Your task to perform on an android device: change your default location settings in chrome Image 0: 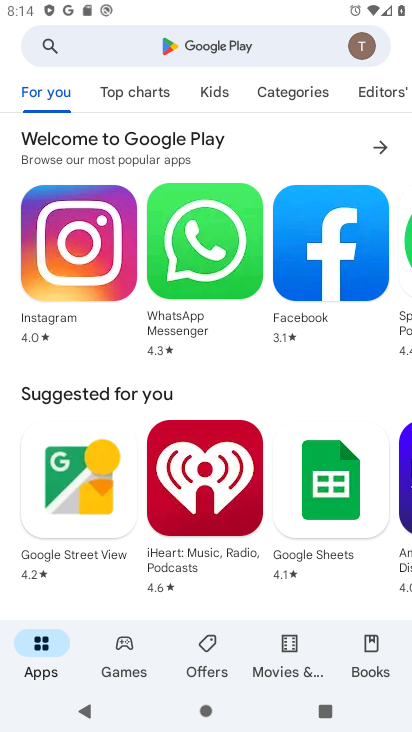
Step 0: press home button
Your task to perform on an android device: change your default location settings in chrome Image 1: 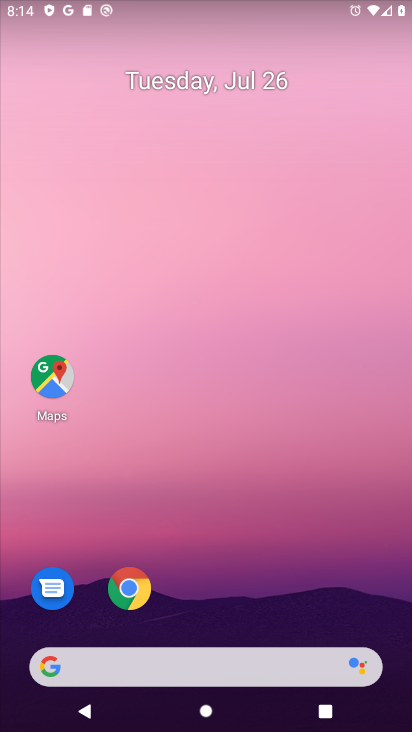
Step 1: drag from (237, 581) to (331, 19)
Your task to perform on an android device: change your default location settings in chrome Image 2: 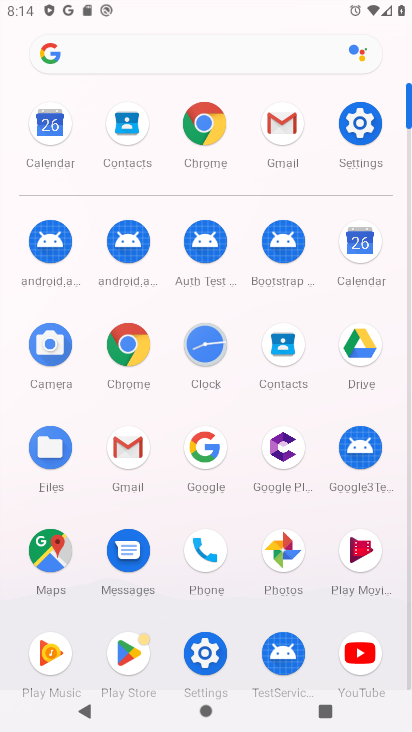
Step 2: click (213, 132)
Your task to perform on an android device: change your default location settings in chrome Image 3: 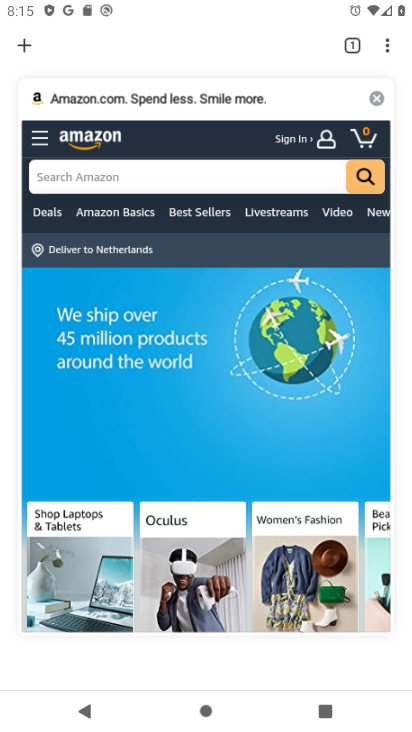
Step 3: click (144, 154)
Your task to perform on an android device: change your default location settings in chrome Image 4: 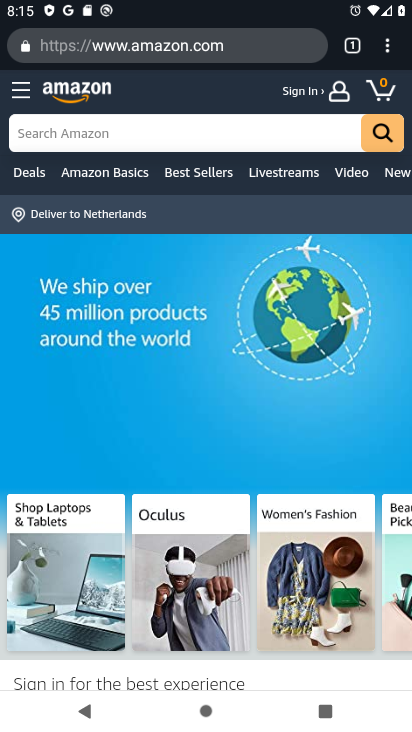
Step 4: click (389, 54)
Your task to perform on an android device: change your default location settings in chrome Image 5: 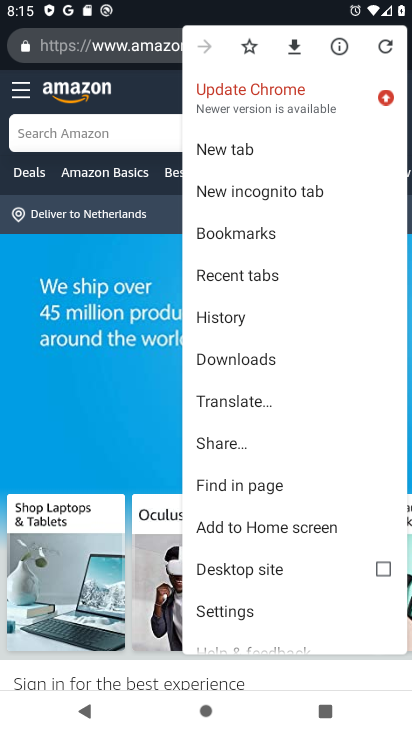
Step 5: click (222, 610)
Your task to perform on an android device: change your default location settings in chrome Image 6: 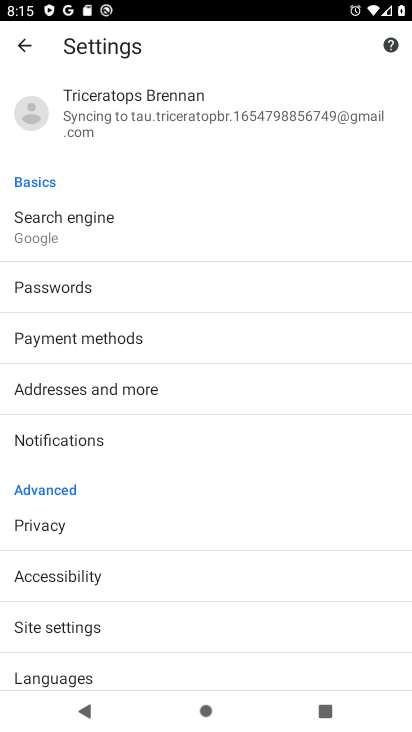
Step 6: click (51, 628)
Your task to perform on an android device: change your default location settings in chrome Image 7: 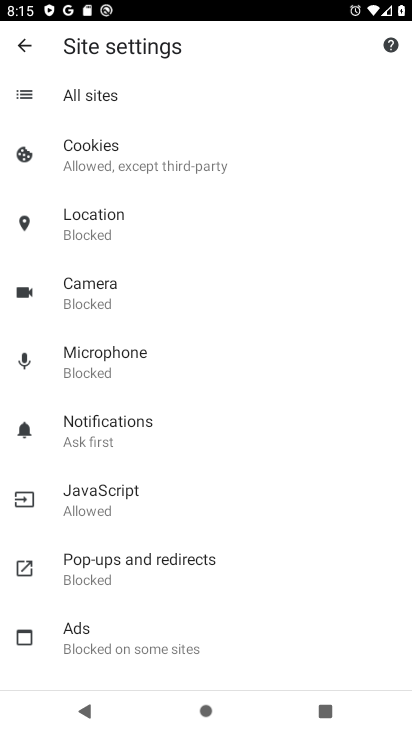
Step 7: drag from (113, 483) to (123, 585)
Your task to perform on an android device: change your default location settings in chrome Image 8: 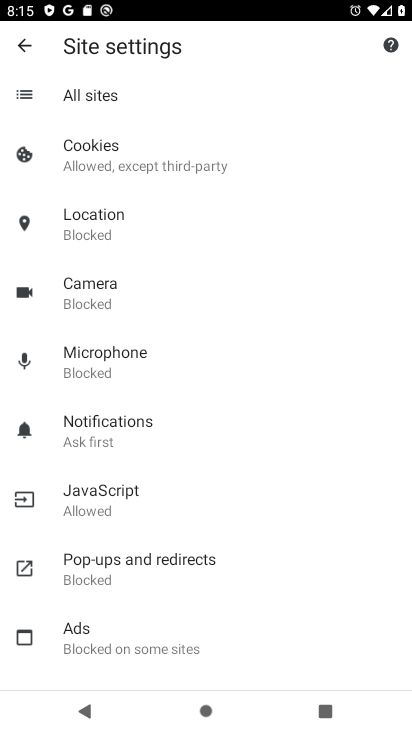
Step 8: click (127, 231)
Your task to perform on an android device: change your default location settings in chrome Image 9: 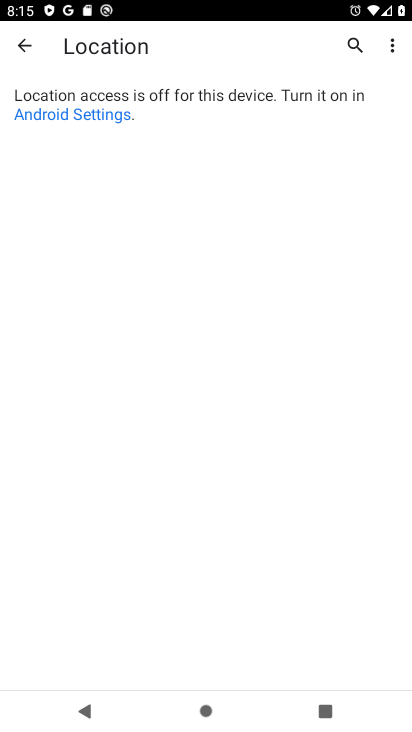
Step 9: task complete